Your task to perform on an android device: Open calendar and show me the fourth week of next month Image 0: 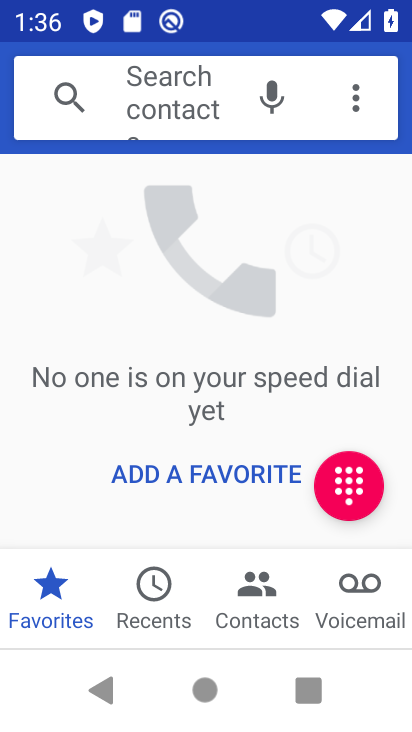
Step 0: press home button
Your task to perform on an android device: Open calendar and show me the fourth week of next month Image 1: 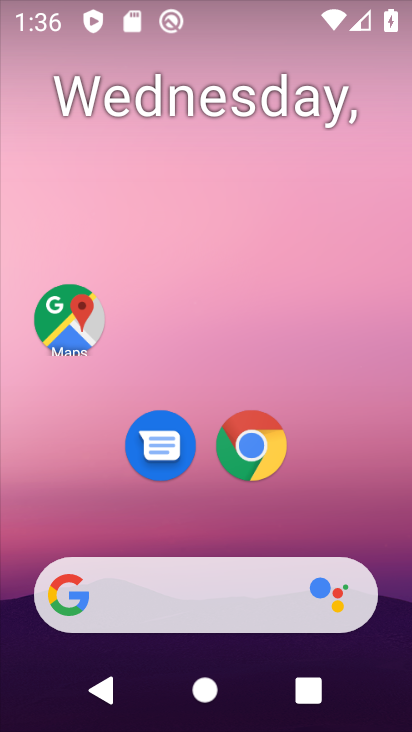
Step 1: drag from (368, 524) to (177, 0)
Your task to perform on an android device: Open calendar and show me the fourth week of next month Image 2: 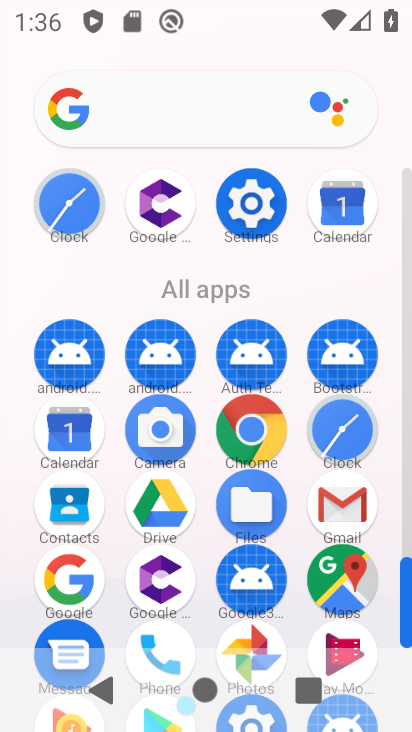
Step 2: click (50, 436)
Your task to perform on an android device: Open calendar and show me the fourth week of next month Image 3: 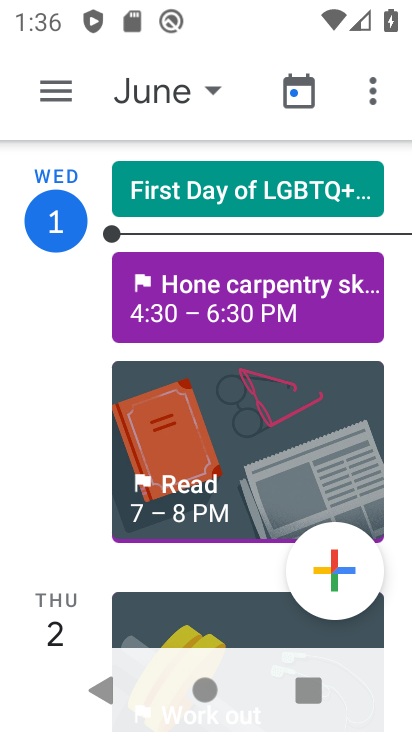
Step 3: click (203, 87)
Your task to perform on an android device: Open calendar and show me the fourth week of next month Image 4: 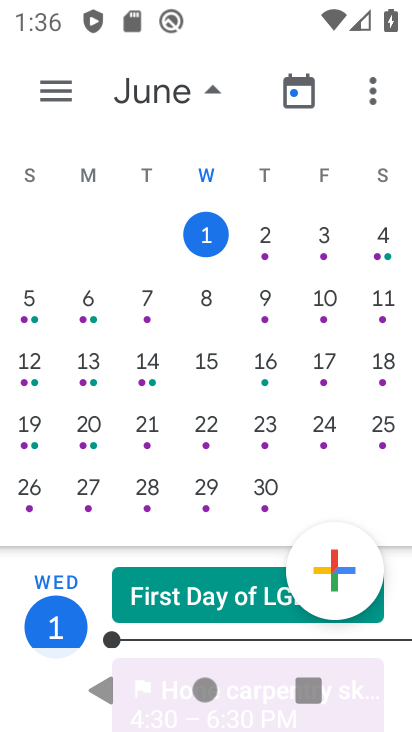
Step 4: drag from (391, 276) to (30, 248)
Your task to perform on an android device: Open calendar and show me the fourth week of next month Image 5: 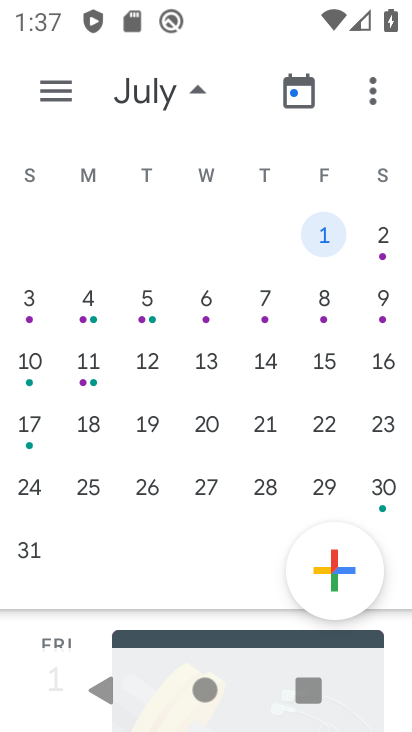
Step 5: click (327, 439)
Your task to perform on an android device: Open calendar and show me the fourth week of next month Image 6: 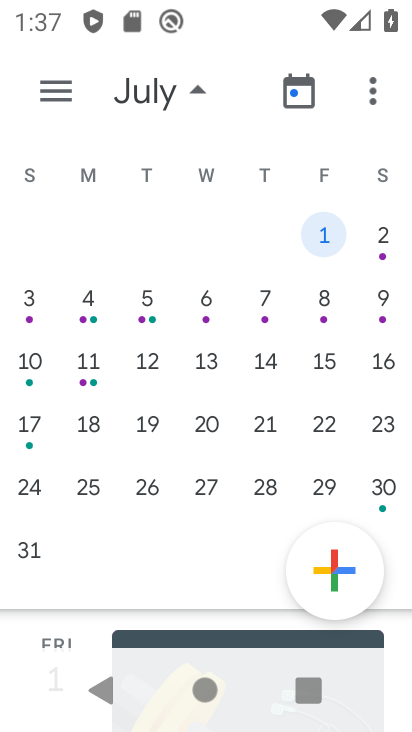
Step 6: click (327, 434)
Your task to perform on an android device: Open calendar and show me the fourth week of next month Image 7: 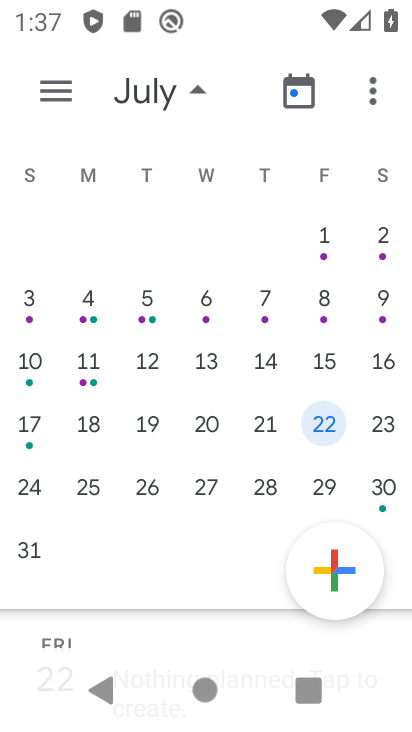
Step 7: task complete